Your task to perform on an android device: Go to Google Image 0: 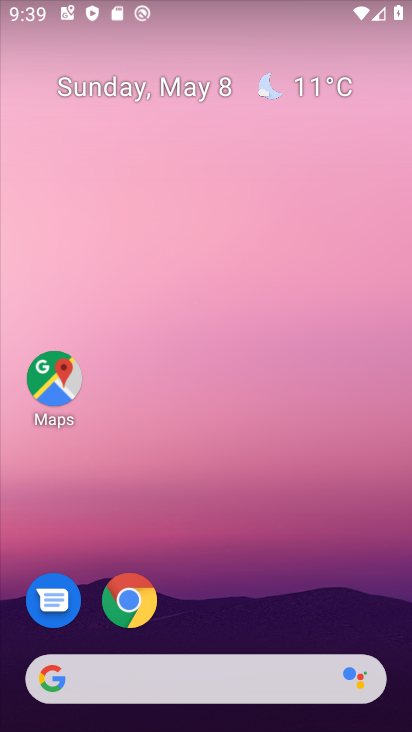
Step 0: drag from (232, 545) to (196, 16)
Your task to perform on an android device: Go to Google Image 1: 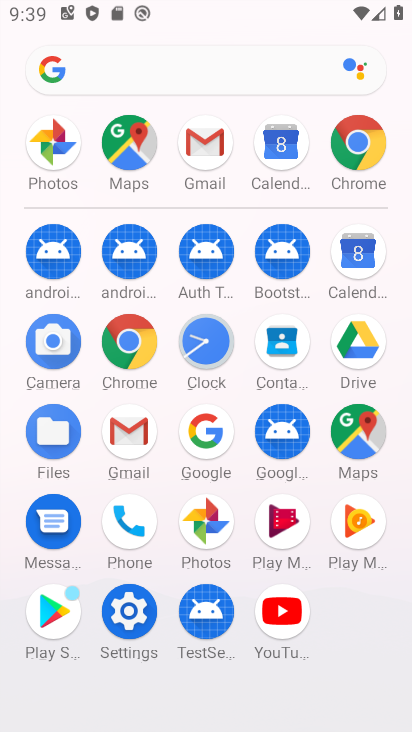
Step 1: drag from (4, 578) to (15, 351)
Your task to perform on an android device: Go to Google Image 2: 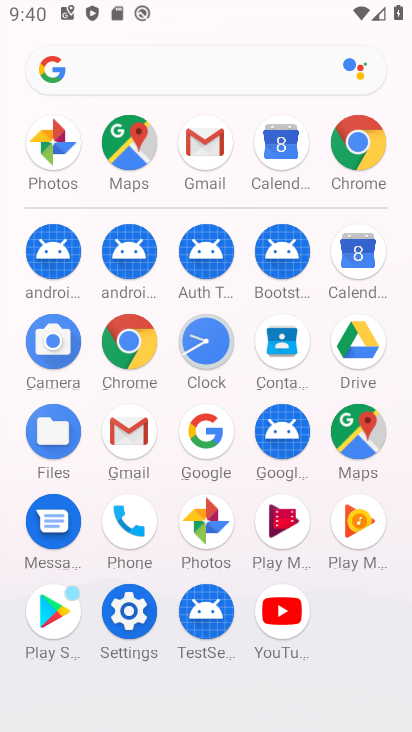
Step 2: click (122, 337)
Your task to perform on an android device: Go to Google Image 3: 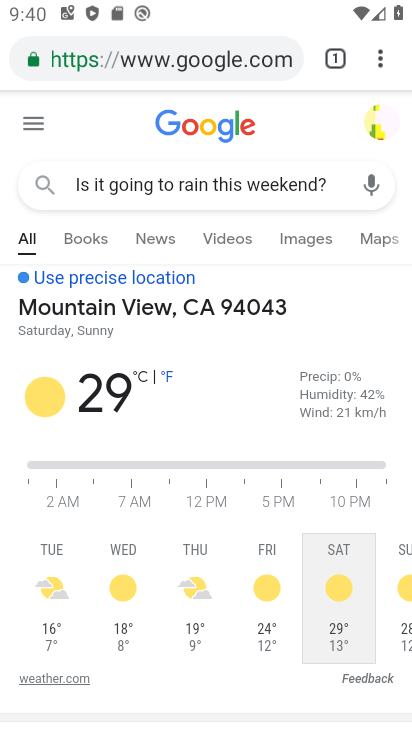
Step 3: click (219, 49)
Your task to perform on an android device: Go to Google Image 4: 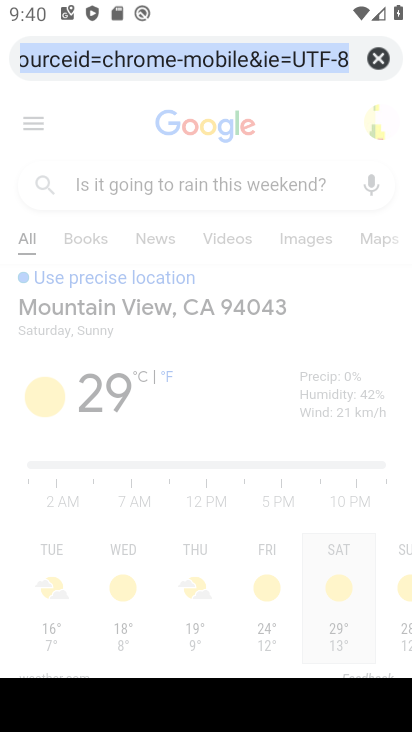
Step 4: click (379, 46)
Your task to perform on an android device: Go to Google Image 5: 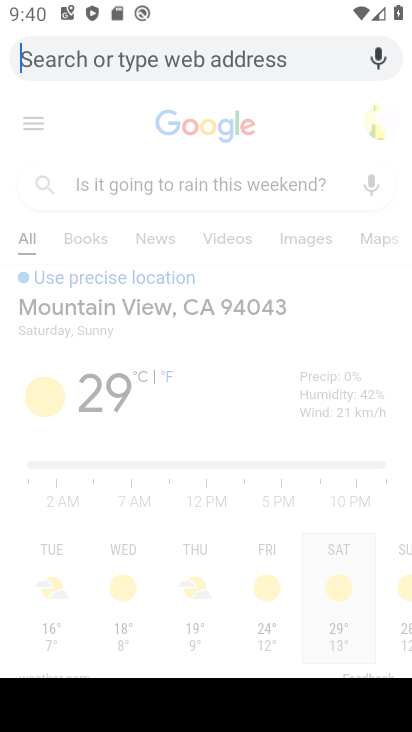
Step 5: type "Google"
Your task to perform on an android device: Go to Google Image 6: 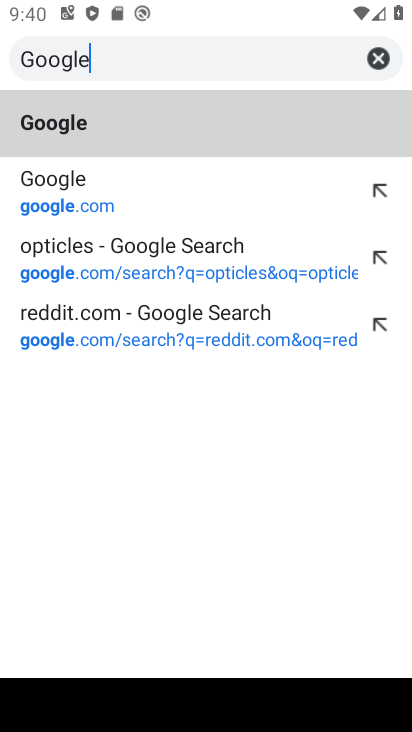
Step 6: type ""
Your task to perform on an android device: Go to Google Image 7: 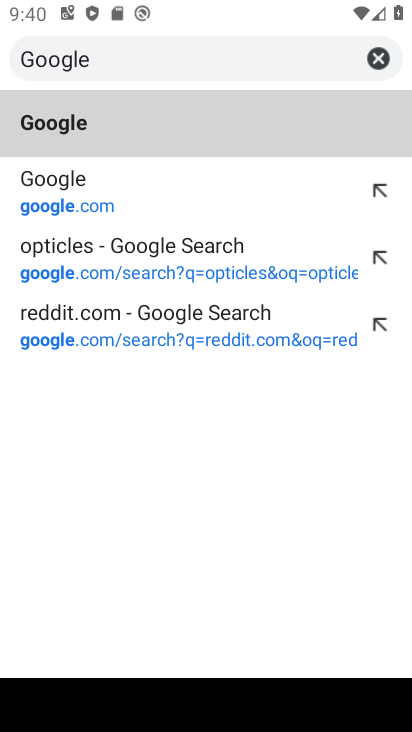
Step 7: click (110, 203)
Your task to perform on an android device: Go to Google Image 8: 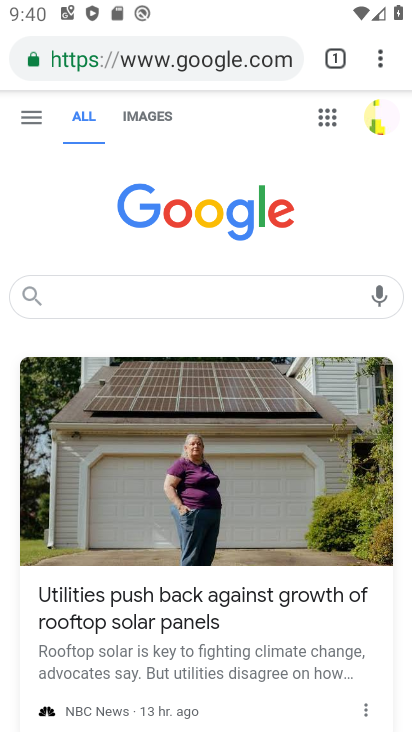
Step 8: task complete